Your task to perform on an android device: Add "jbl flip 4" to the cart on bestbuy.com Image 0: 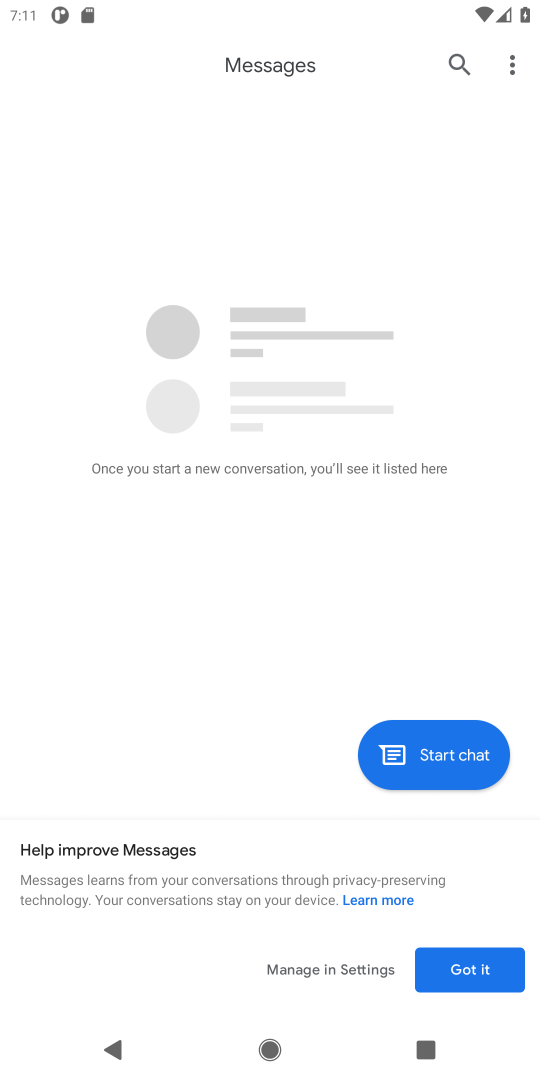
Step 0: press home button
Your task to perform on an android device: Add "jbl flip 4" to the cart on bestbuy.com Image 1: 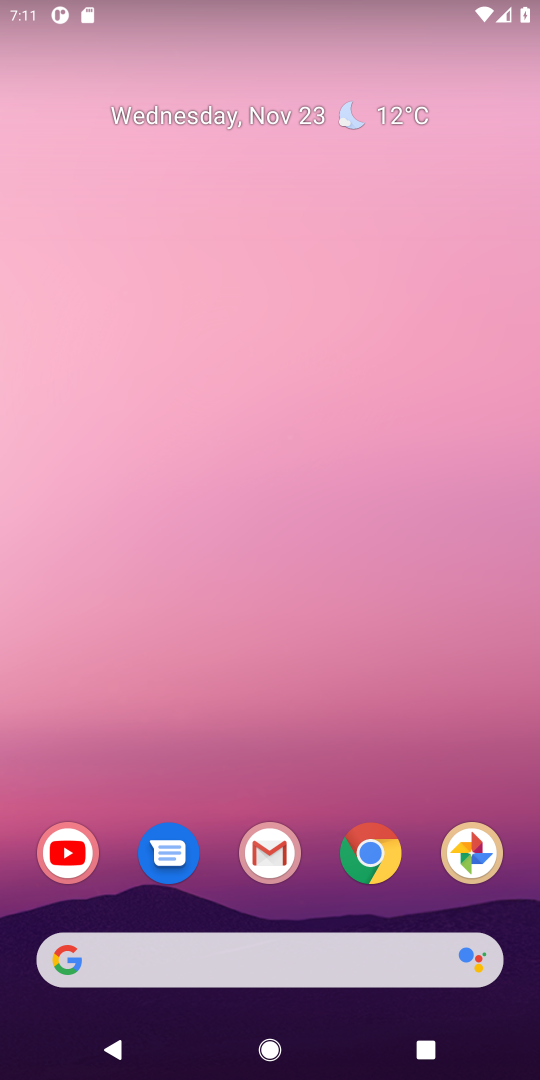
Step 1: click (380, 857)
Your task to perform on an android device: Add "jbl flip 4" to the cart on bestbuy.com Image 2: 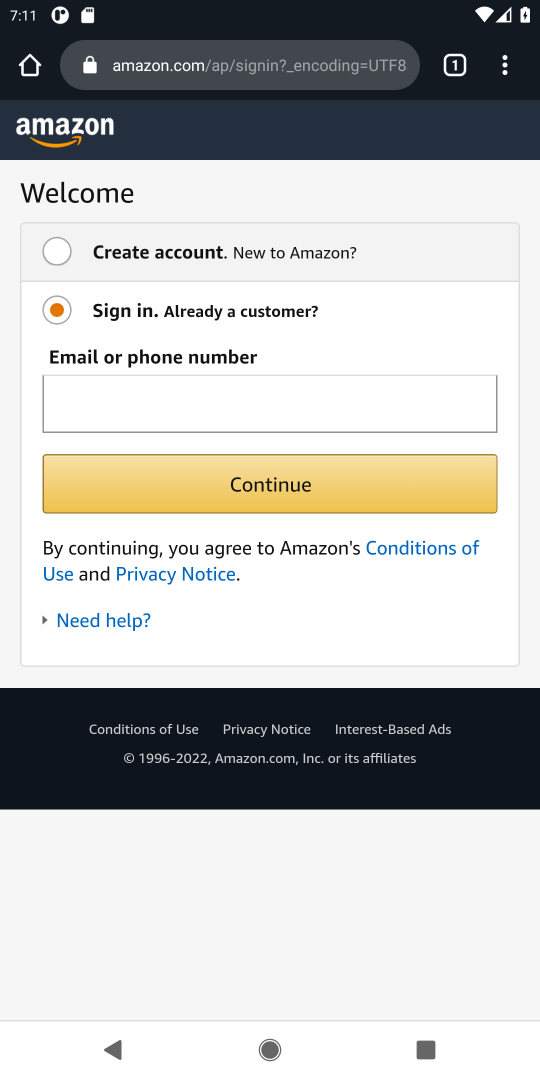
Step 2: click (199, 64)
Your task to perform on an android device: Add "jbl flip 4" to the cart on bestbuy.com Image 3: 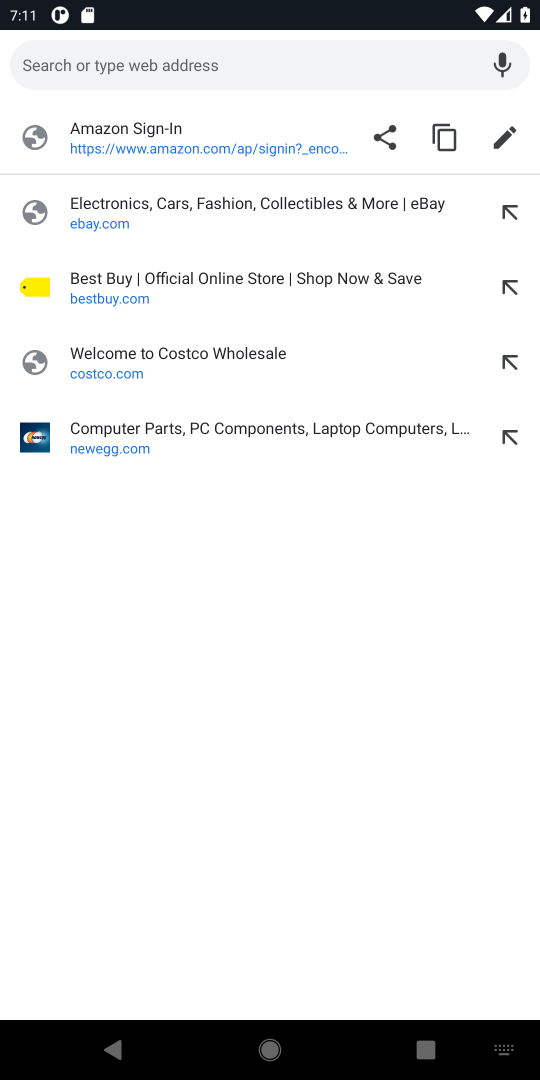
Step 3: click (81, 285)
Your task to perform on an android device: Add "jbl flip 4" to the cart on bestbuy.com Image 4: 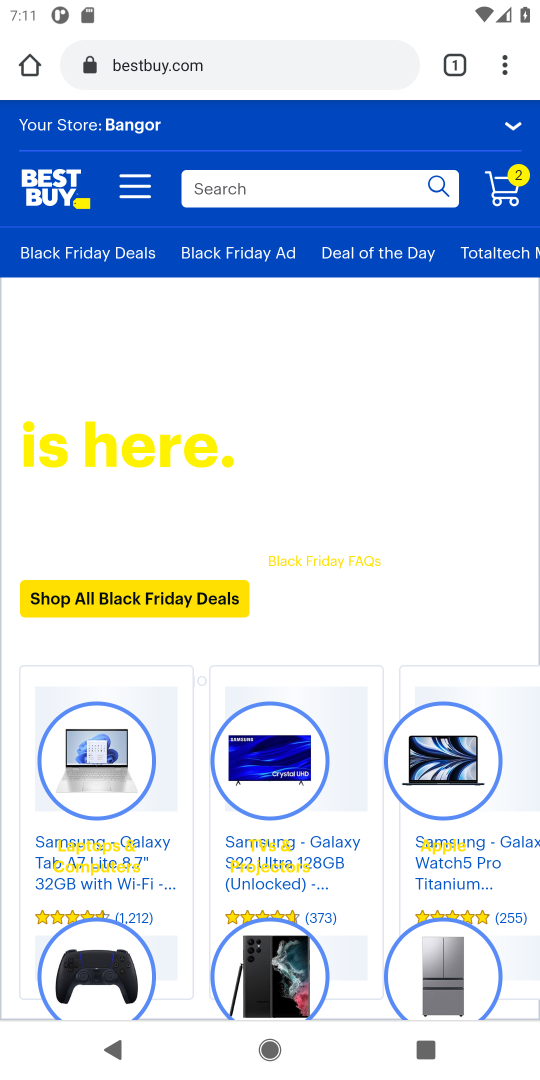
Step 4: click (233, 192)
Your task to perform on an android device: Add "jbl flip 4" to the cart on bestbuy.com Image 5: 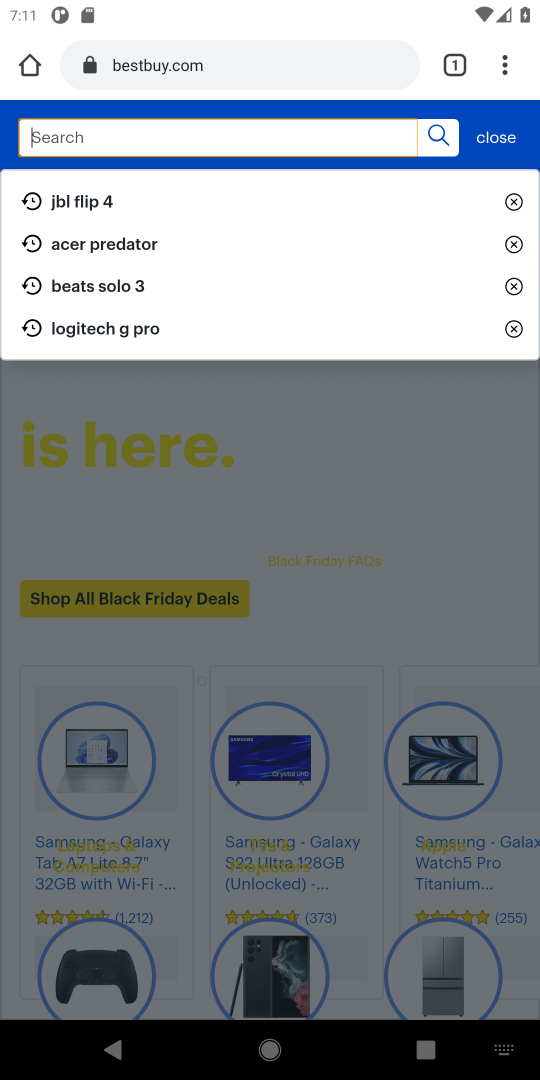
Step 5: click (102, 203)
Your task to perform on an android device: Add "jbl flip 4" to the cart on bestbuy.com Image 6: 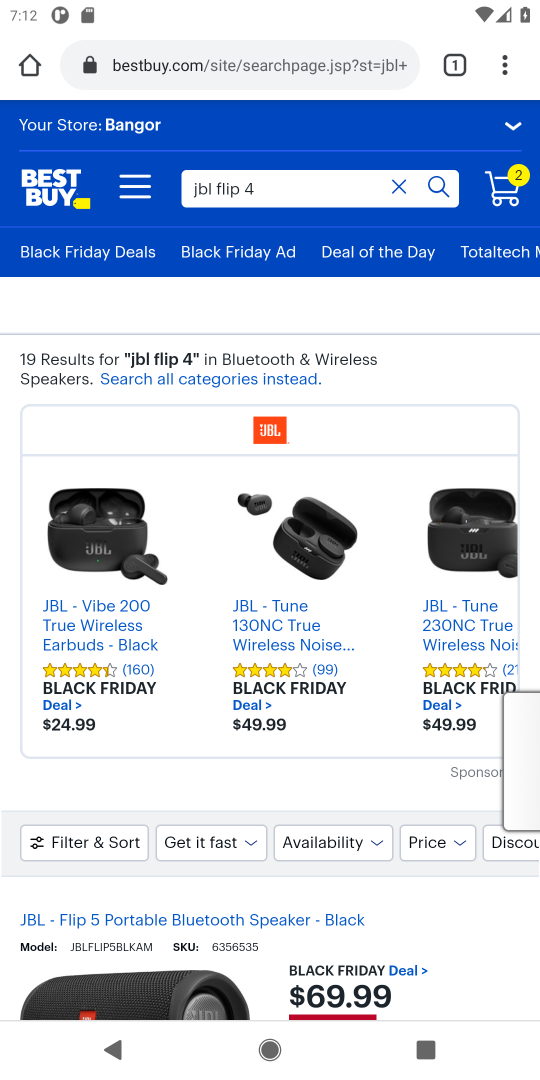
Step 6: task complete